Your task to perform on an android device: turn off sleep mode Image 0: 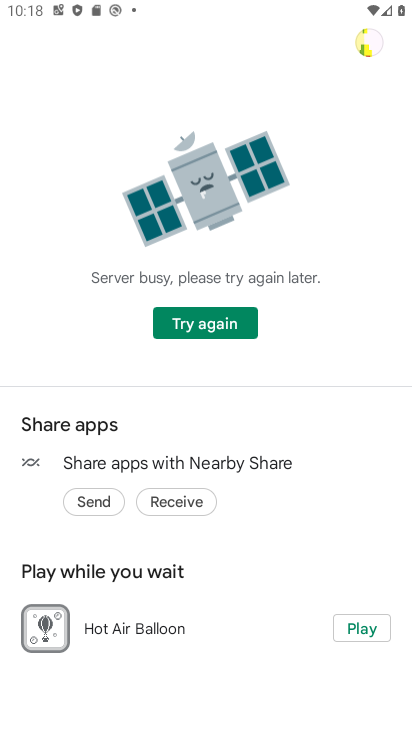
Step 0: press home button
Your task to perform on an android device: turn off sleep mode Image 1: 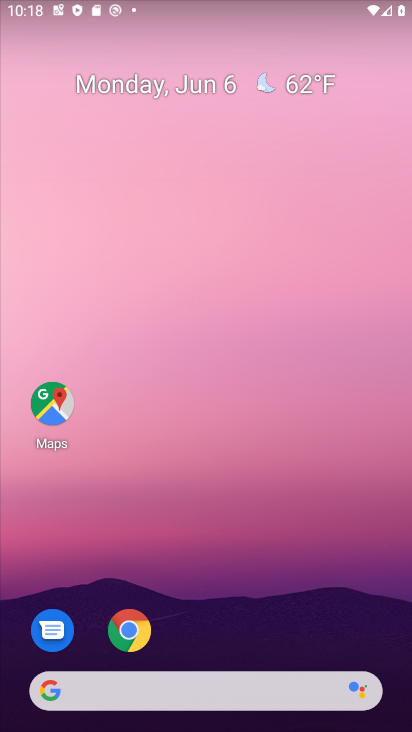
Step 1: drag from (285, 634) to (304, 219)
Your task to perform on an android device: turn off sleep mode Image 2: 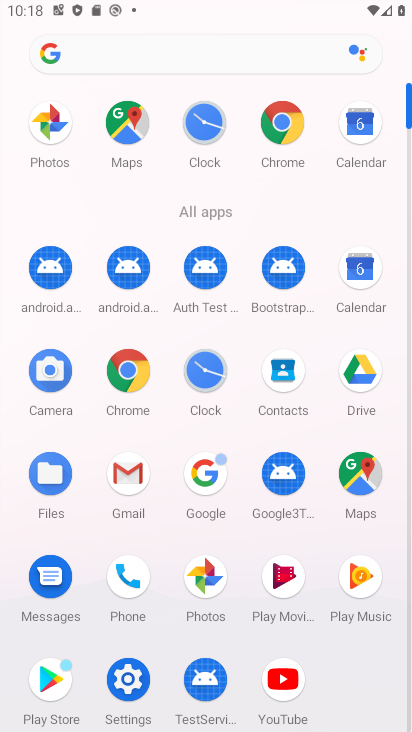
Step 2: click (136, 696)
Your task to perform on an android device: turn off sleep mode Image 3: 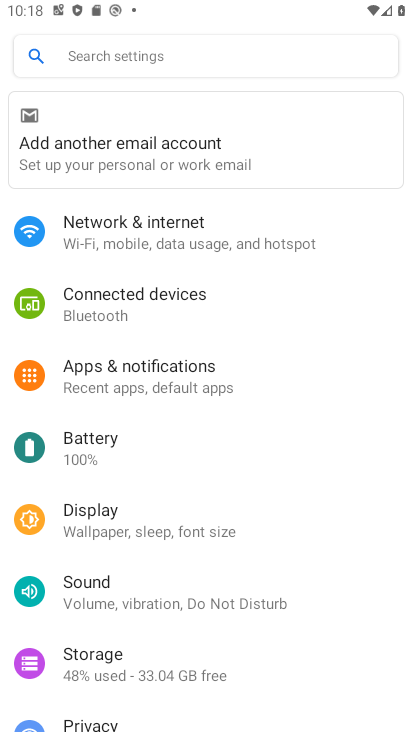
Step 3: click (190, 53)
Your task to perform on an android device: turn off sleep mode Image 4: 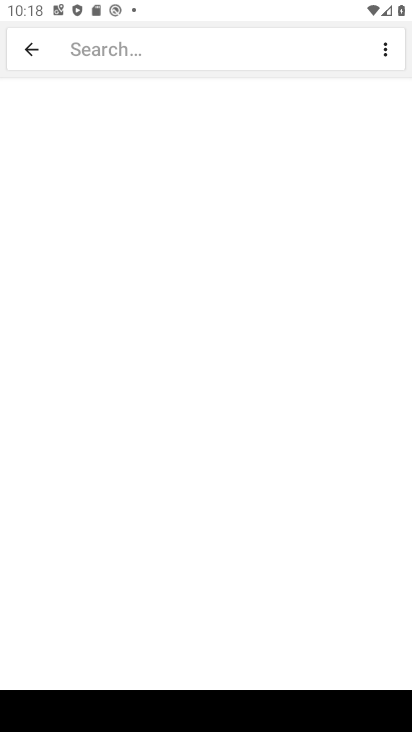
Step 4: type "sleep mode"
Your task to perform on an android device: turn off sleep mode Image 5: 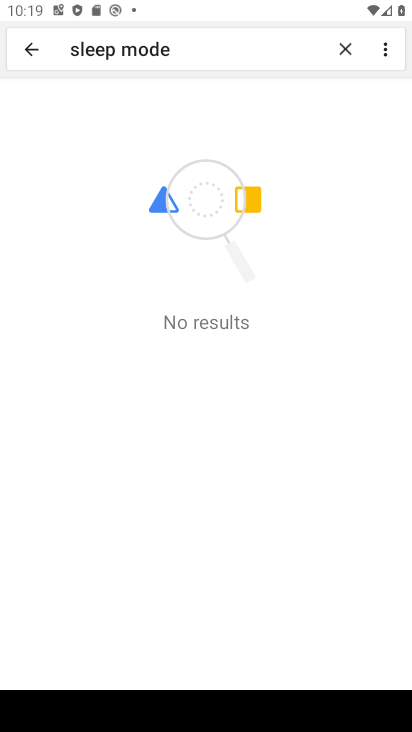
Step 5: task complete